Your task to perform on an android device: Open maps Image 0: 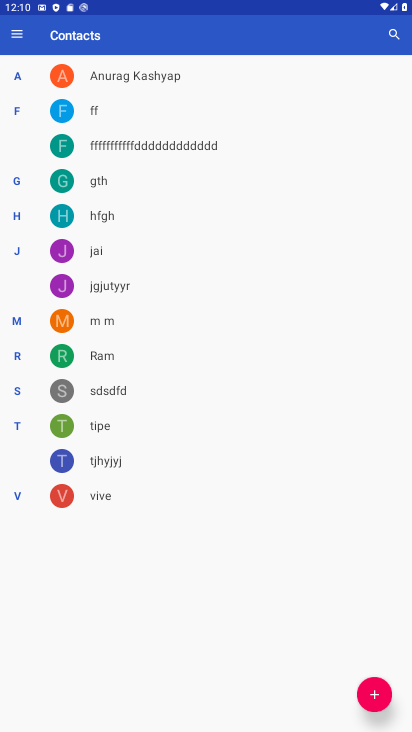
Step 0: press home button
Your task to perform on an android device: Open maps Image 1: 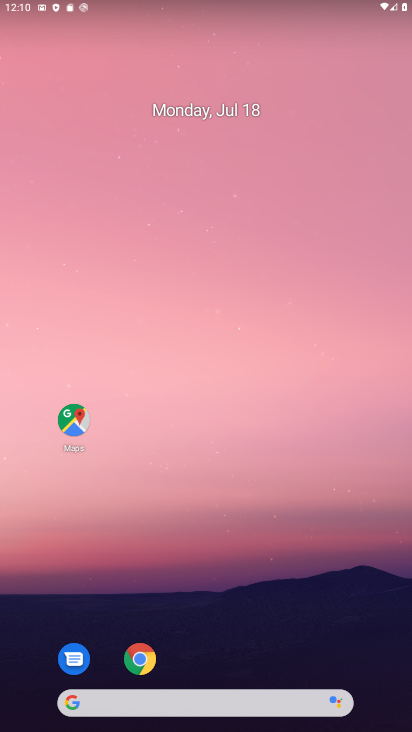
Step 1: click (75, 417)
Your task to perform on an android device: Open maps Image 2: 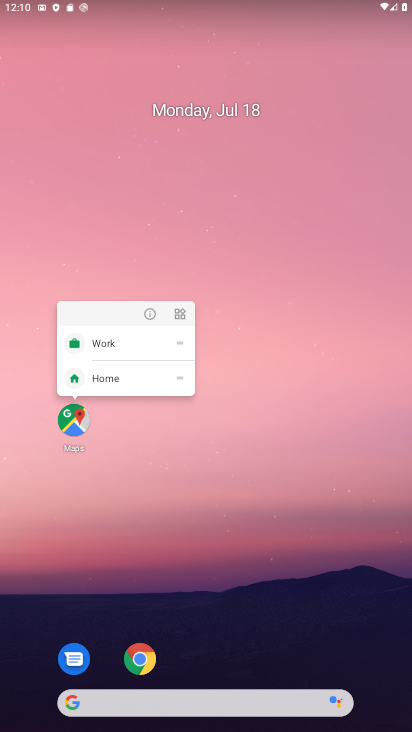
Step 2: click (69, 423)
Your task to perform on an android device: Open maps Image 3: 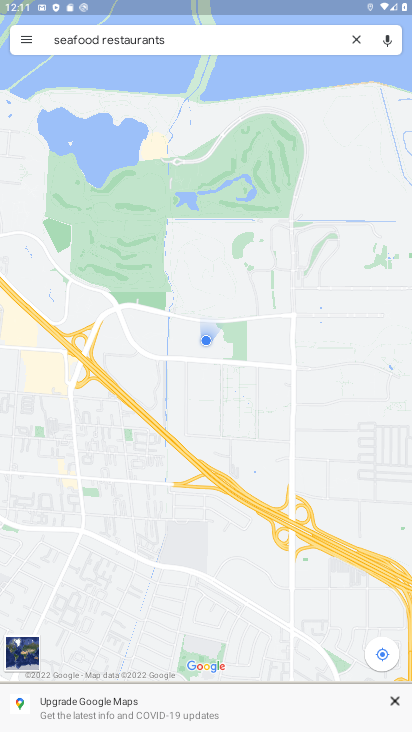
Step 3: task complete